Your task to perform on an android device: set the stopwatch Image 0: 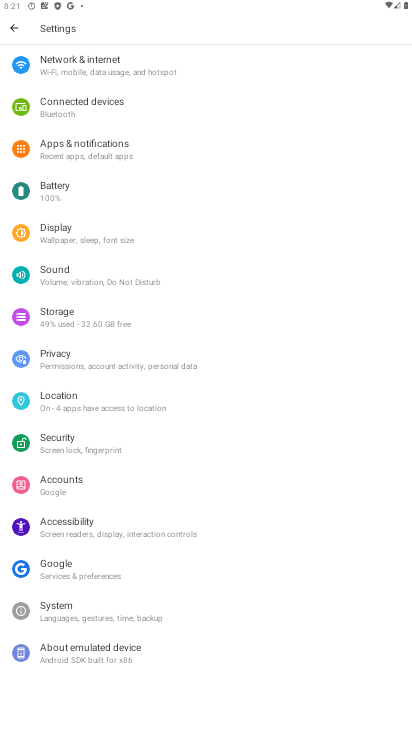
Step 0: press home button
Your task to perform on an android device: set the stopwatch Image 1: 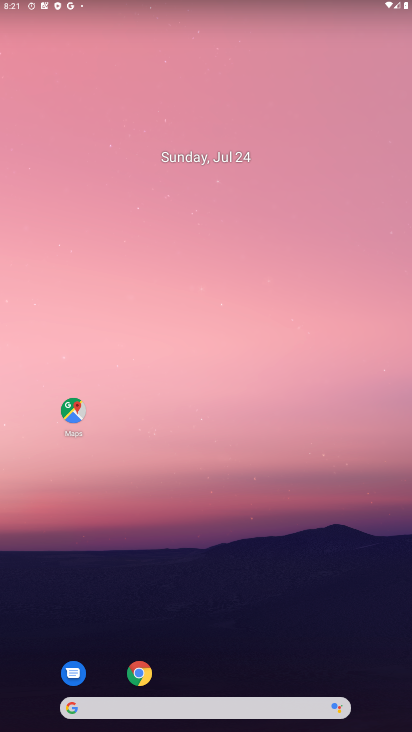
Step 1: drag from (15, 700) to (146, 265)
Your task to perform on an android device: set the stopwatch Image 2: 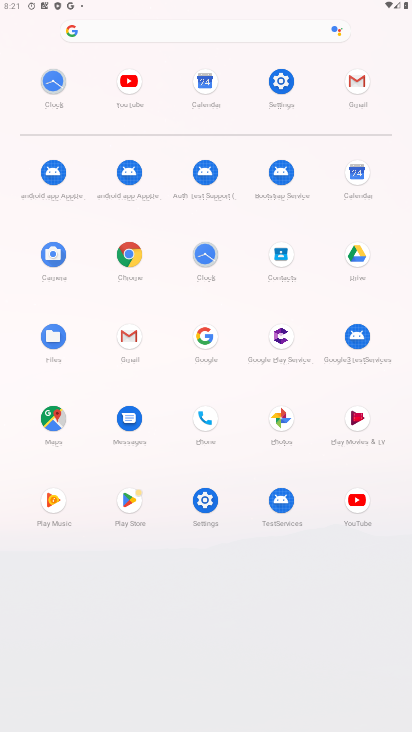
Step 2: click (204, 265)
Your task to perform on an android device: set the stopwatch Image 3: 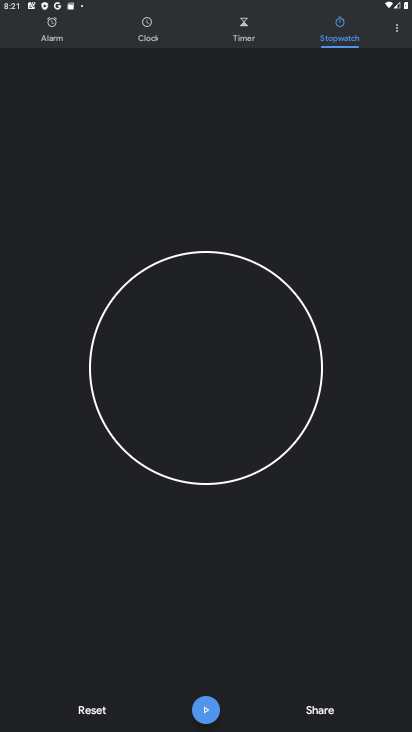
Step 3: click (206, 715)
Your task to perform on an android device: set the stopwatch Image 4: 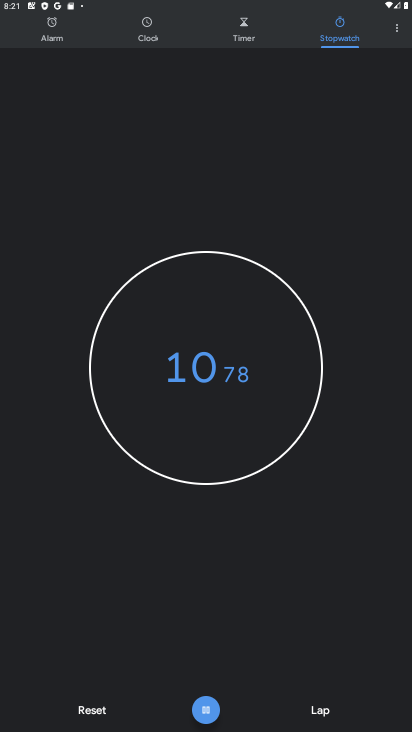
Step 4: click (202, 711)
Your task to perform on an android device: set the stopwatch Image 5: 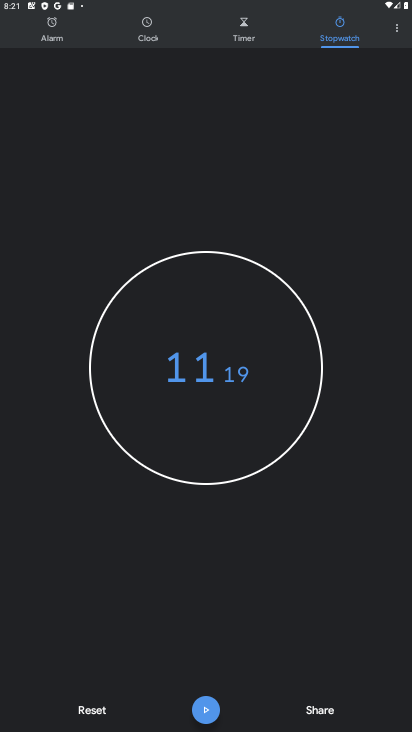
Step 5: task complete